Your task to perform on an android device: Show me the alarms in the clock app Image 0: 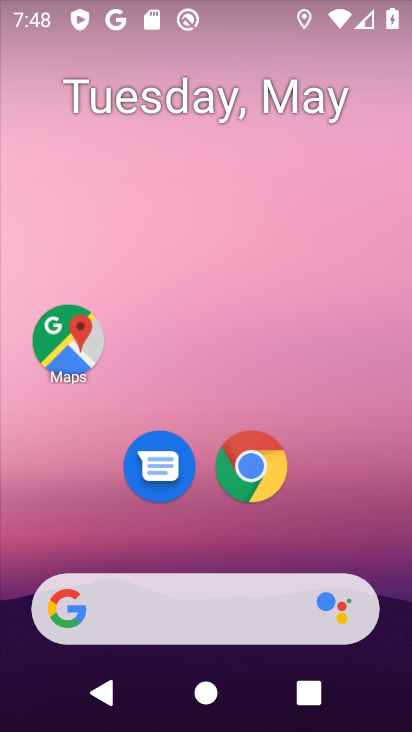
Step 0: click (203, 210)
Your task to perform on an android device: Show me the alarms in the clock app Image 1: 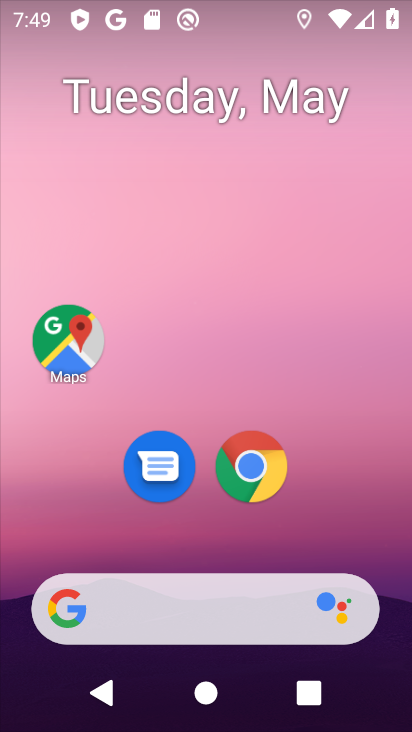
Step 1: drag from (211, 582) to (251, 69)
Your task to perform on an android device: Show me the alarms in the clock app Image 2: 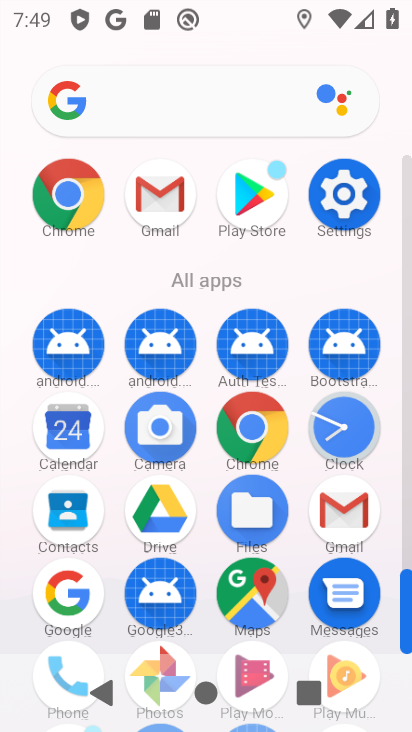
Step 2: click (346, 433)
Your task to perform on an android device: Show me the alarms in the clock app Image 3: 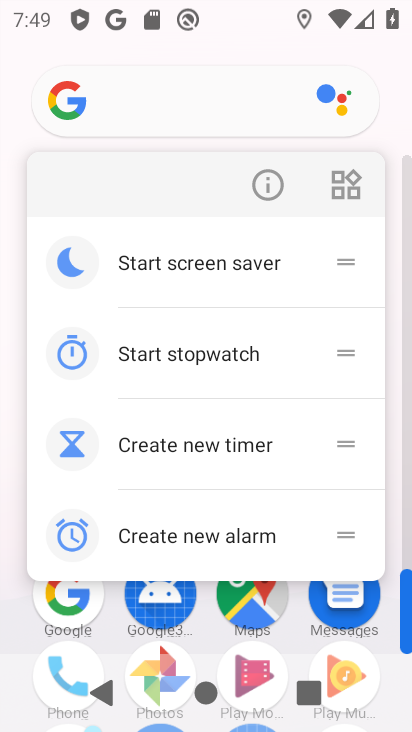
Step 3: click (402, 75)
Your task to perform on an android device: Show me the alarms in the clock app Image 4: 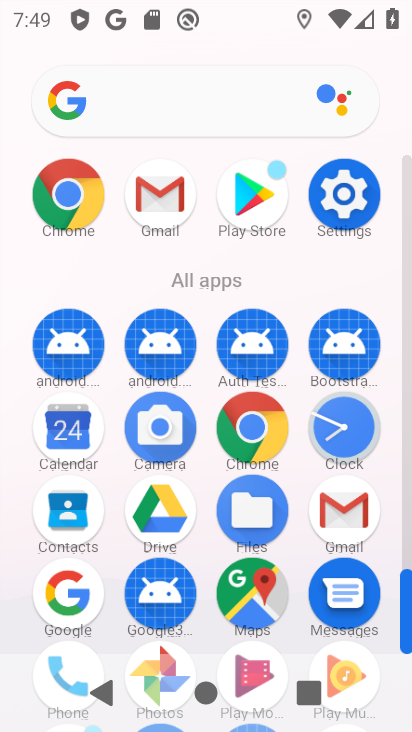
Step 4: click (351, 431)
Your task to perform on an android device: Show me the alarms in the clock app Image 5: 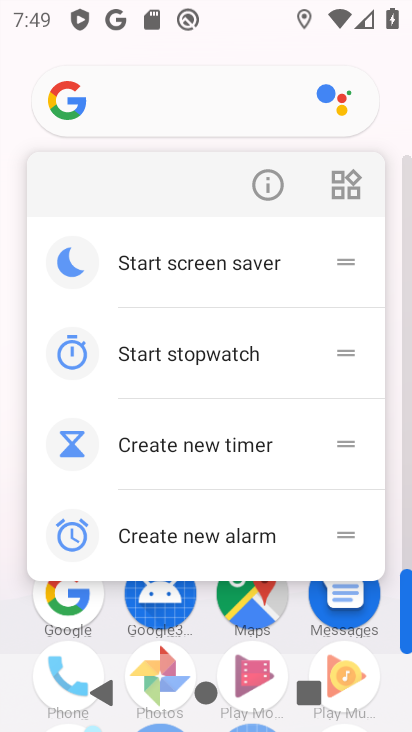
Step 5: click (392, 107)
Your task to perform on an android device: Show me the alarms in the clock app Image 6: 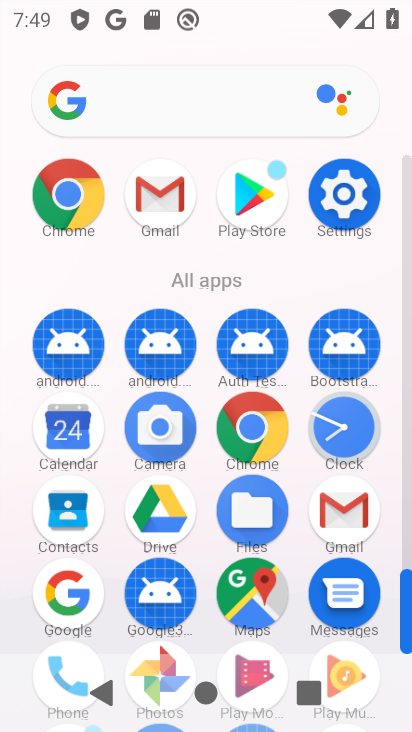
Step 6: click (357, 443)
Your task to perform on an android device: Show me the alarms in the clock app Image 7: 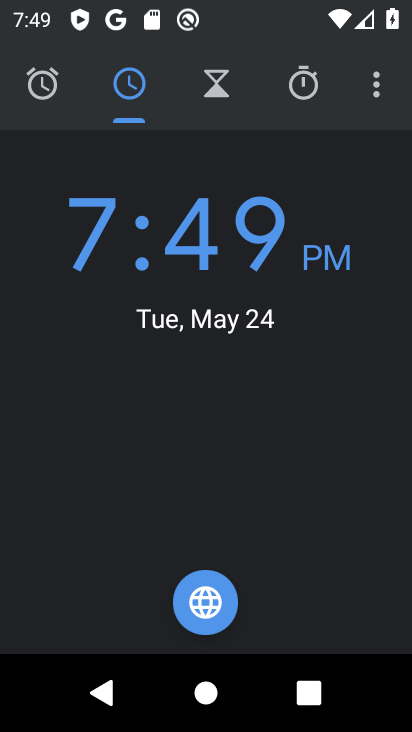
Step 7: click (47, 85)
Your task to perform on an android device: Show me the alarms in the clock app Image 8: 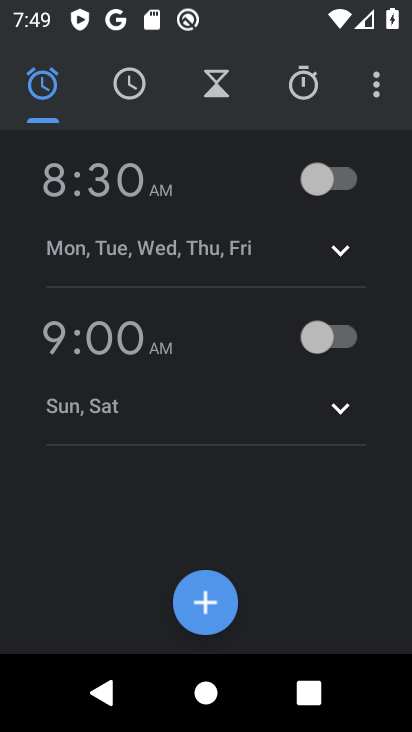
Step 8: task complete